Your task to perform on an android device: Open calendar and show me the first week of next month Image 0: 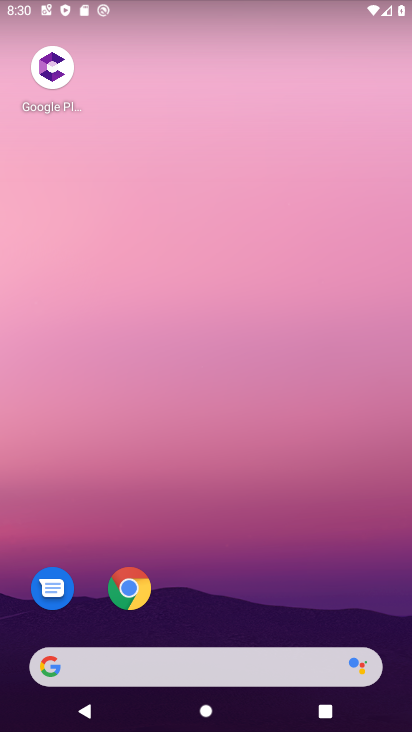
Step 0: drag from (175, 660) to (191, 327)
Your task to perform on an android device: Open calendar and show me the first week of next month Image 1: 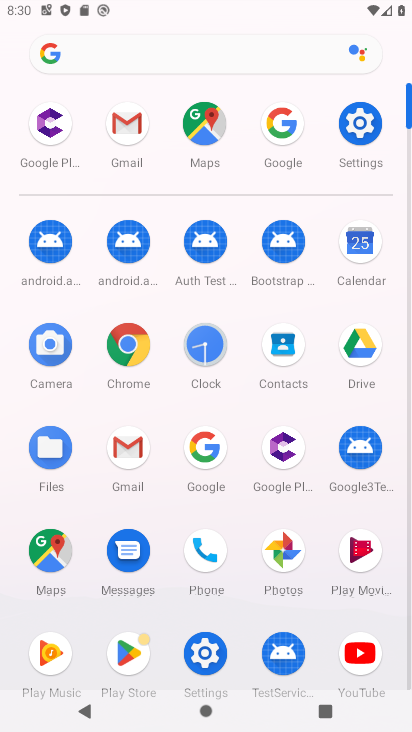
Step 1: click (356, 253)
Your task to perform on an android device: Open calendar and show me the first week of next month Image 2: 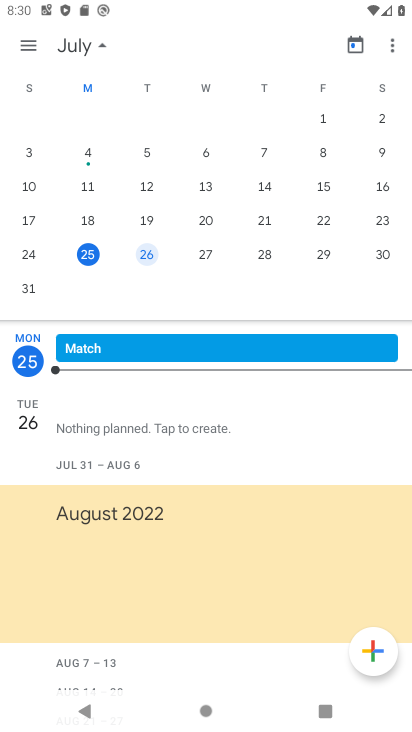
Step 2: drag from (387, 196) to (34, 235)
Your task to perform on an android device: Open calendar and show me the first week of next month Image 3: 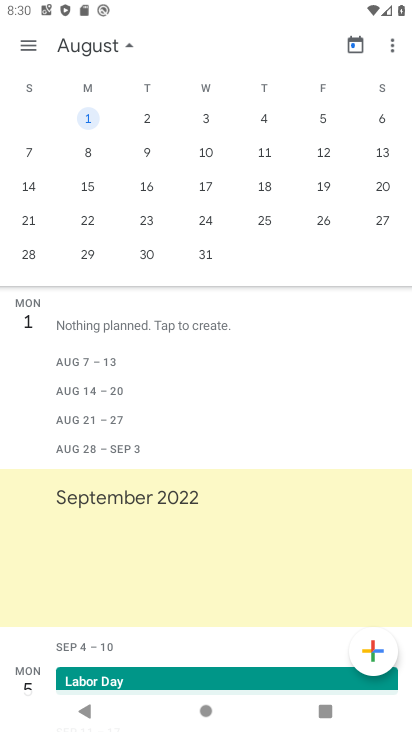
Step 3: click (90, 123)
Your task to perform on an android device: Open calendar and show me the first week of next month Image 4: 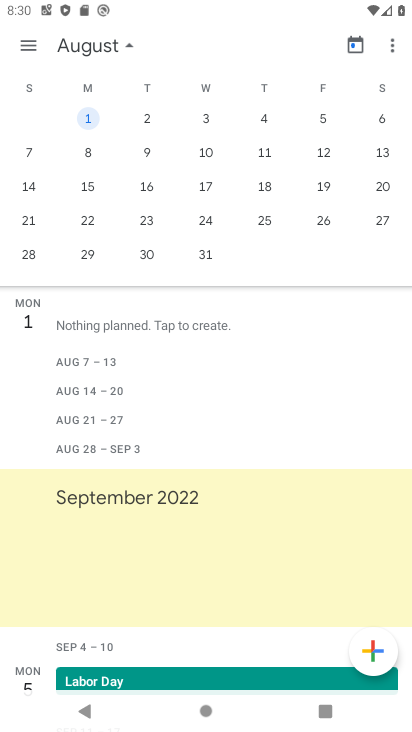
Step 4: task complete